Your task to perform on an android device: What's on my calendar today? Image 0: 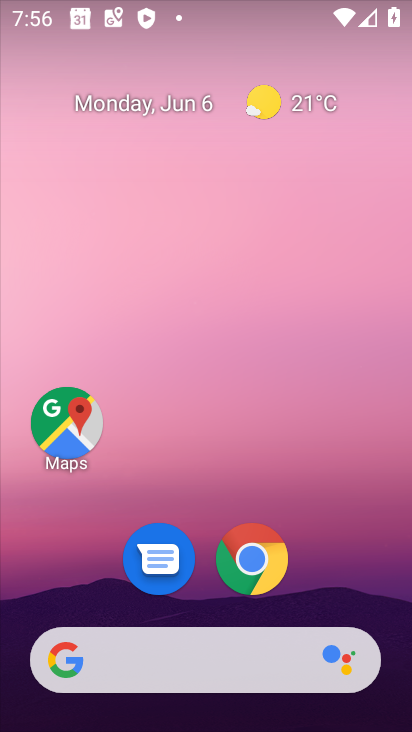
Step 0: drag from (232, 728) to (215, 194)
Your task to perform on an android device: What's on my calendar today? Image 1: 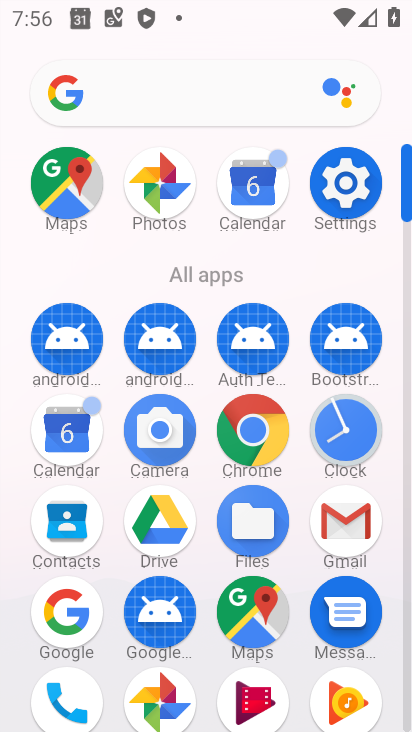
Step 1: click (70, 443)
Your task to perform on an android device: What's on my calendar today? Image 2: 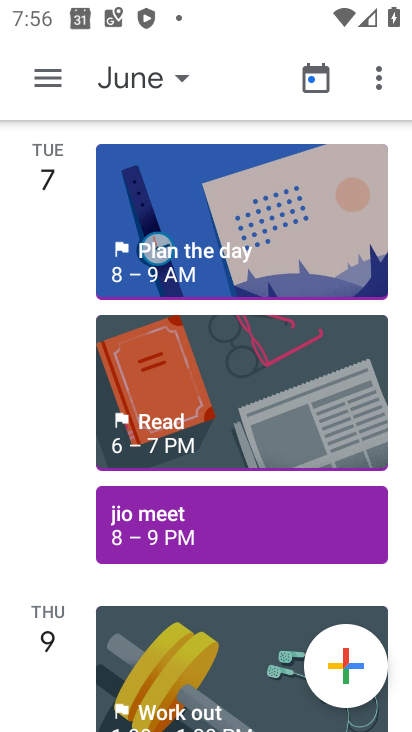
Step 2: click (181, 76)
Your task to perform on an android device: What's on my calendar today? Image 3: 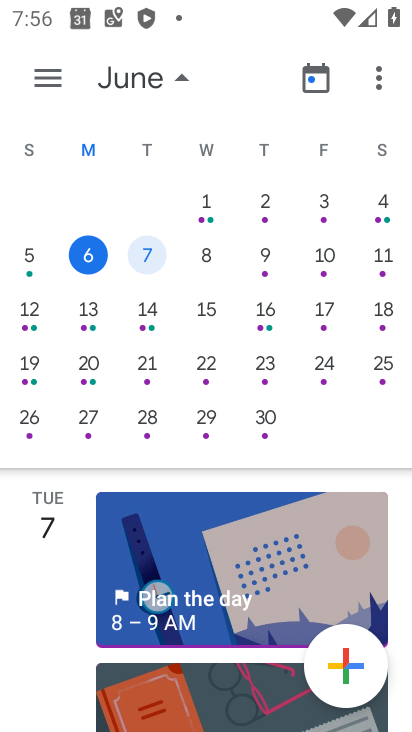
Step 3: click (88, 254)
Your task to perform on an android device: What's on my calendar today? Image 4: 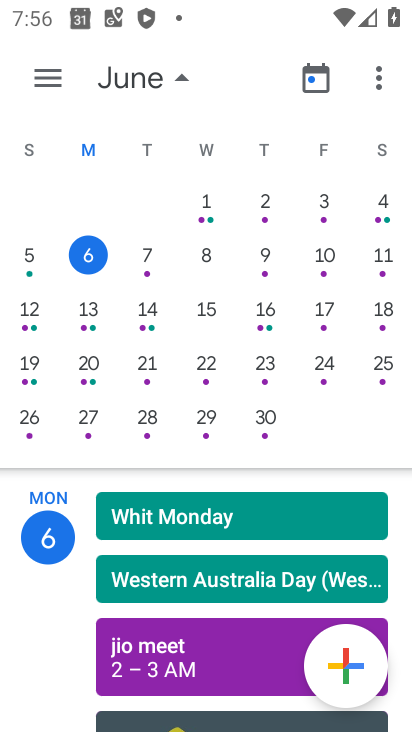
Step 4: click (182, 72)
Your task to perform on an android device: What's on my calendar today? Image 5: 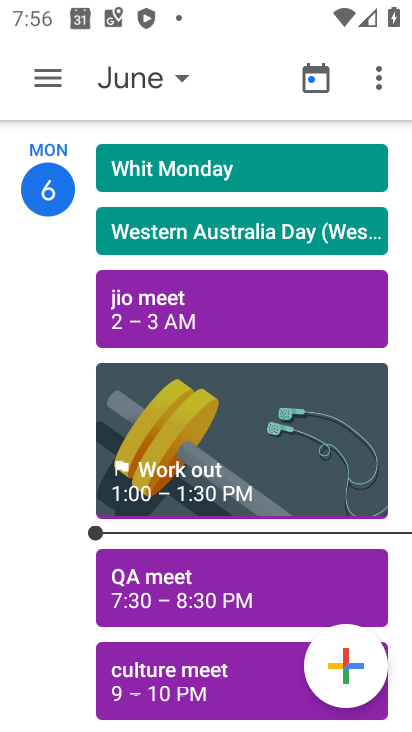
Step 5: task complete